Your task to perform on an android device: Go to accessibility settings Image 0: 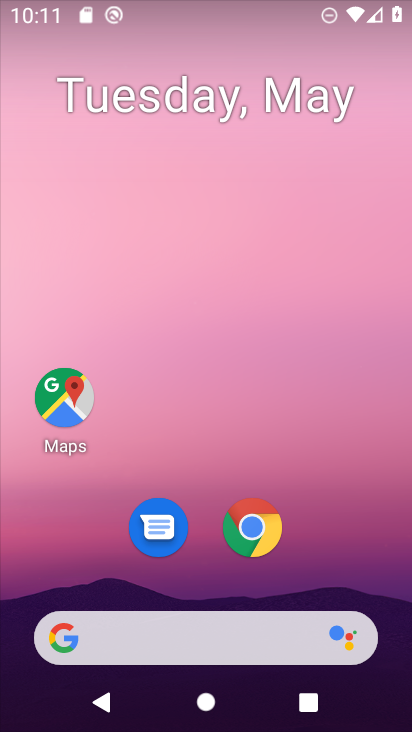
Step 0: drag from (316, 566) to (232, 112)
Your task to perform on an android device: Go to accessibility settings Image 1: 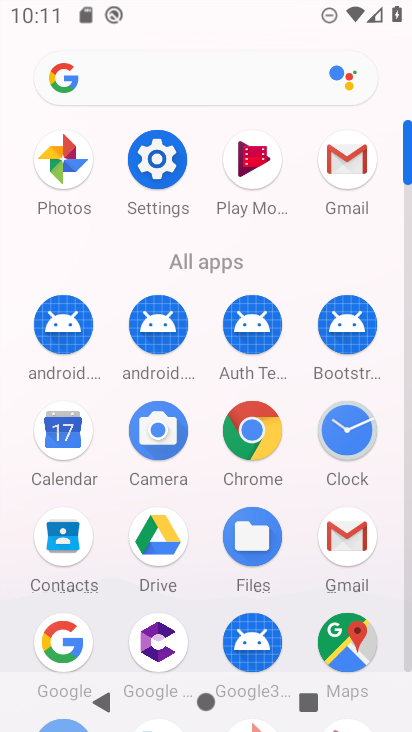
Step 1: click (155, 160)
Your task to perform on an android device: Go to accessibility settings Image 2: 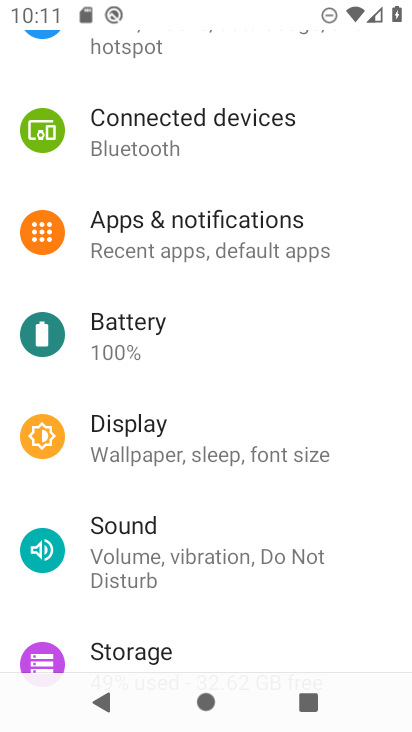
Step 2: drag from (219, 424) to (264, 330)
Your task to perform on an android device: Go to accessibility settings Image 3: 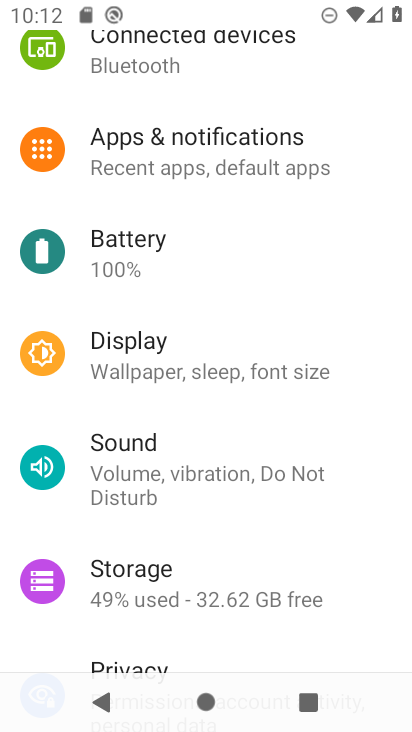
Step 3: drag from (203, 418) to (271, 336)
Your task to perform on an android device: Go to accessibility settings Image 4: 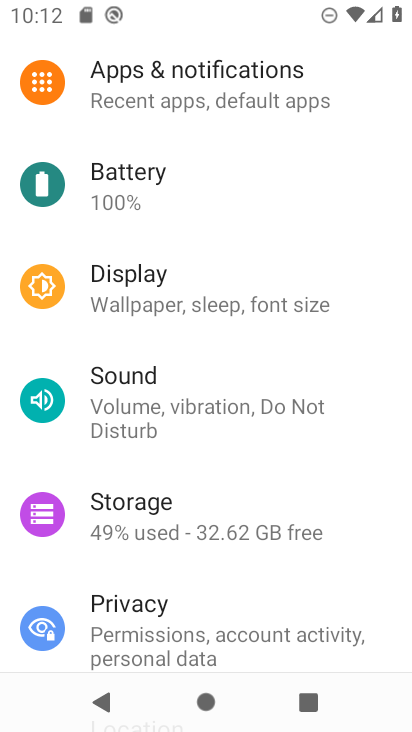
Step 4: drag from (192, 560) to (247, 455)
Your task to perform on an android device: Go to accessibility settings Image 5: 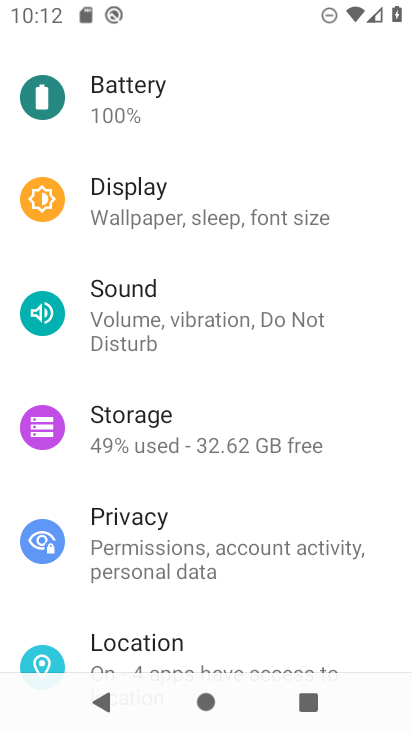
Step 5: drag from (202, 605) to (253, 500)
Your task to perform on an android device: Go to accessibility settings Image 6: 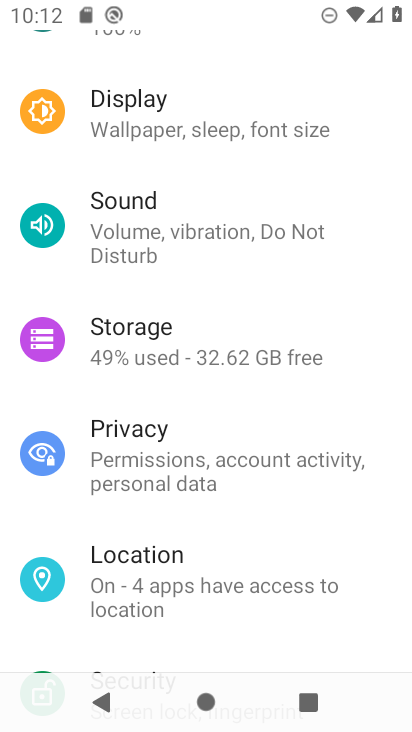
Step 6: drag from (202, 610) to (256, 498)
Your task to perform on an android device: Go to accessibility settings Image 7: 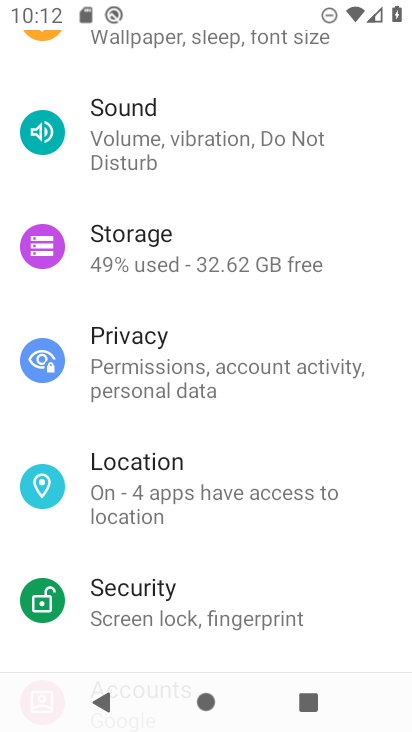
Step 7: drag from (198, 571) to (241, 443)
Your task to perform on an android device: Go to accessibility settings Image 8: 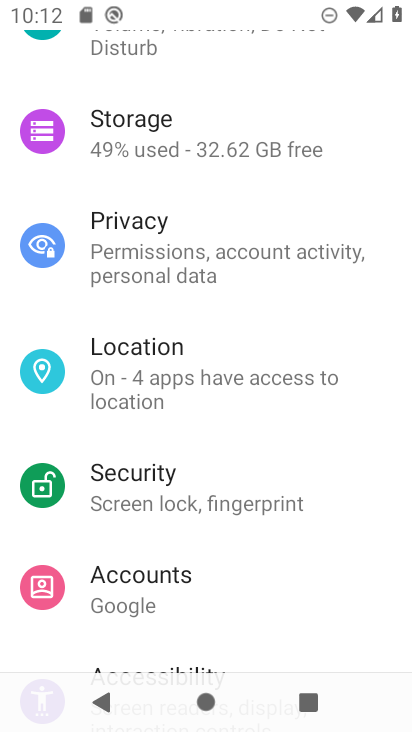
Step 8: drag from (190, 616) to (215, 470)
Your task to perform on an android device: Go to accessibility settings Image 9: 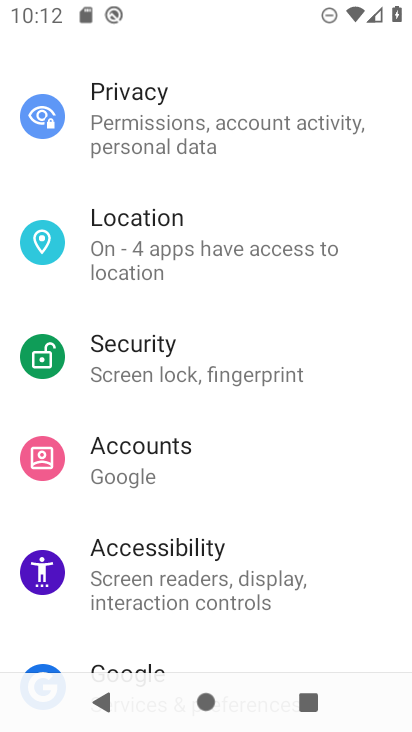
Step 9: drag from (160, 634) to (222, 499)
Your task to perform on an android device: Go to accessibility settings Image 10: 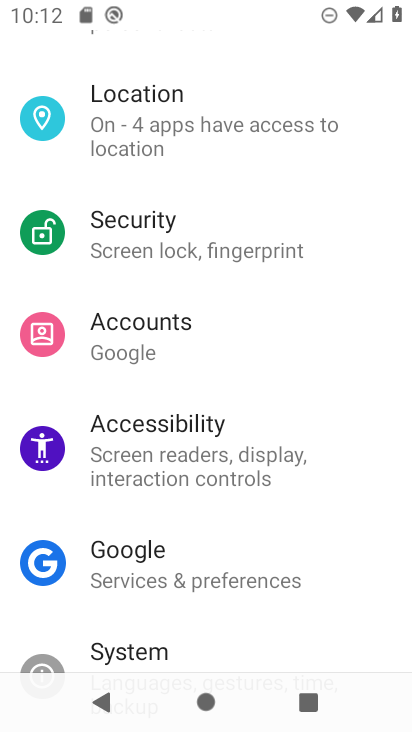
Step 10: click (174, 419)
Your task to perform on an android device: Go to accessibility settings Image 11: 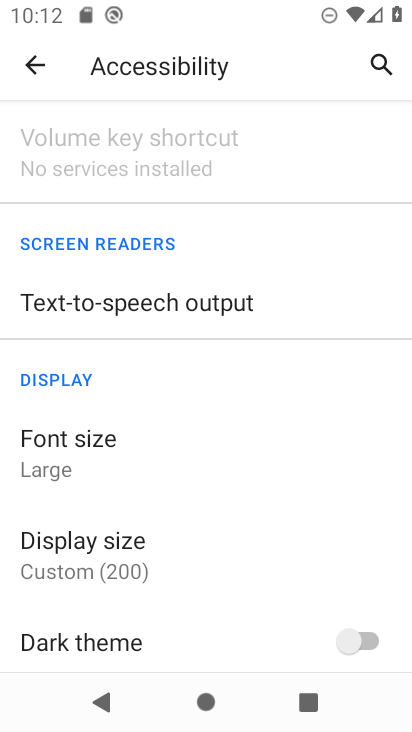
Step 11: task complete